Your task to perform on an android device: turn notification dots on Image 0: 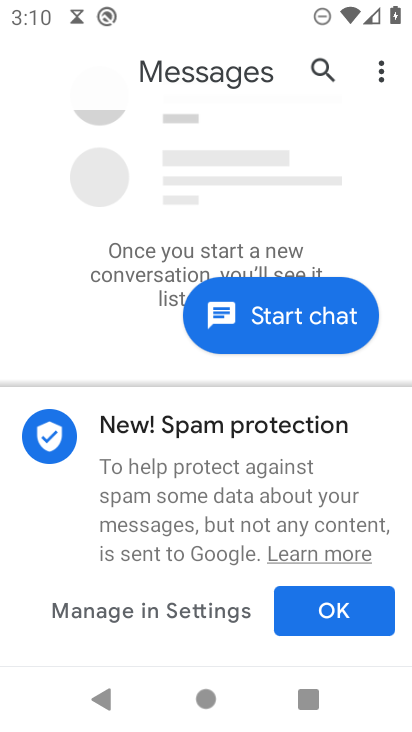
Step 0: press home button
Your task to perform on an android device: turn notification dots on Image 1: 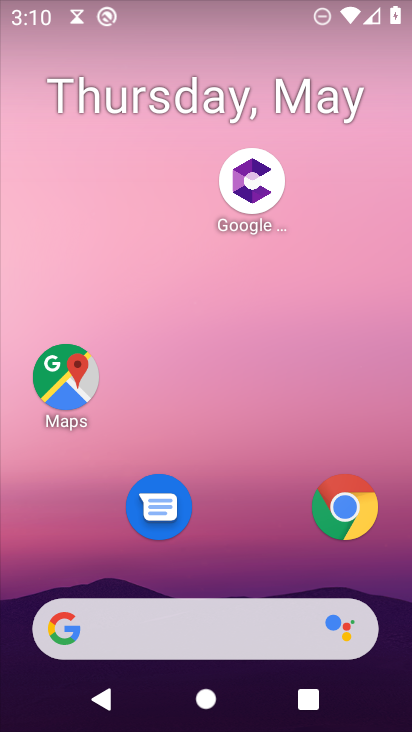
Step 1: drag from (223, 525) to (66, 72)
Your task to perform on an android device: turn notification dots on Image 2: 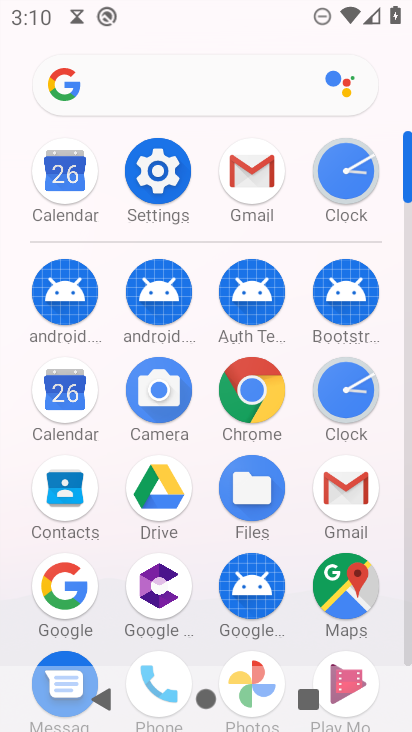
Step 2: click (165, 168)
Your task to perform on an android device: turn notification dots on Image 3: 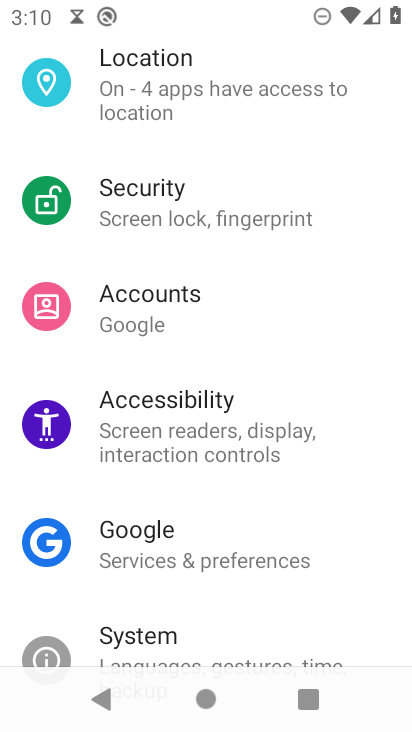
Step 3: drag from (237, 297) to (225, 702)
Your task to perform on an android device: turn notification dots on Image 4: 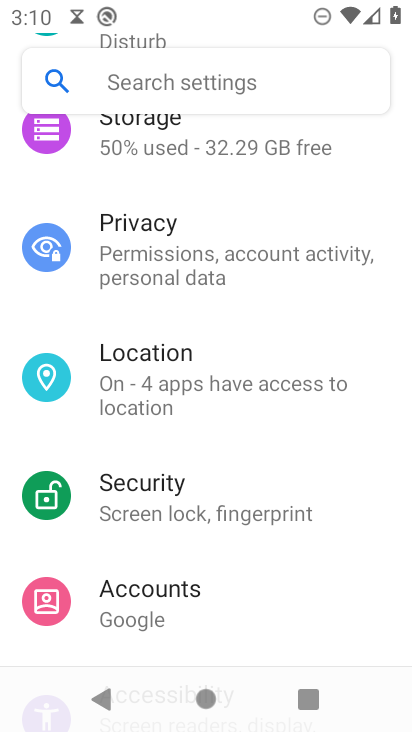
Step 4: drag from (222, 223) to (226, 616)
Your task to perform on an android device: turn notification dots on Image 5: 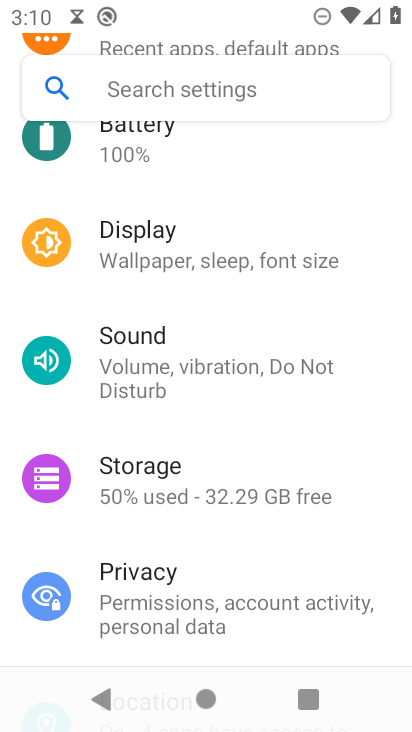
Step 5: drag from (201, 189) to (233, 494)
Your task to perform on an android device: turn notification dots on Image 6: 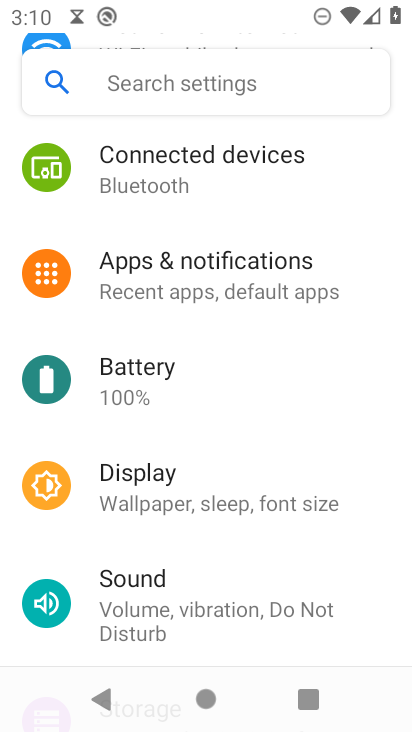
Step 6: click (156, 284)
Your task to perform on an android device: turn notification dots on Image 7: 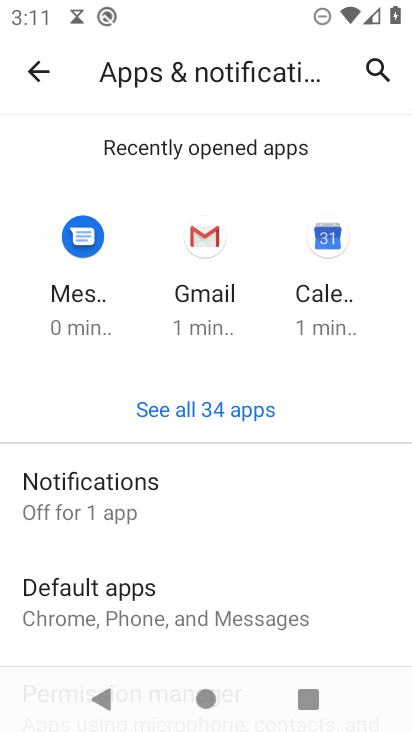
Step 7: drag from (333, 609) to (319, 312)
Your task to perform on an android device: turn notification dots on Image 8: 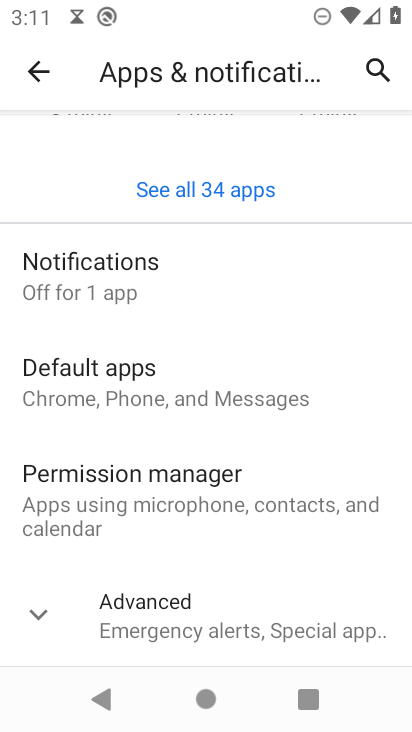
Step 8: click (107, 280)
Your task to perform on an android device: turn notification dots on Image 9: 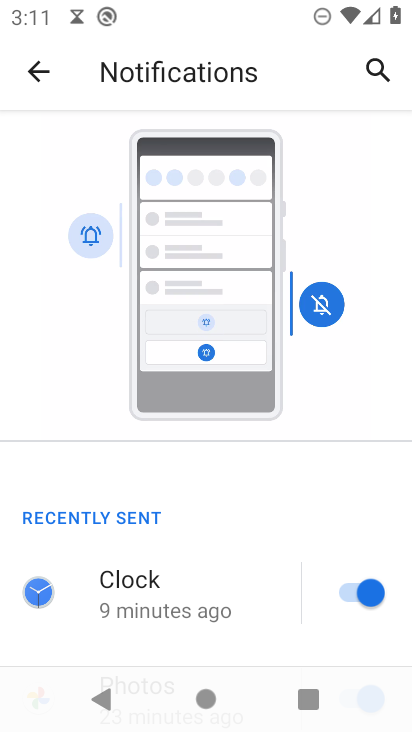
Step 9: drag from (218, 554) to (187, 89)
Your task to perform on an android device: turn notification dots on Image 10: 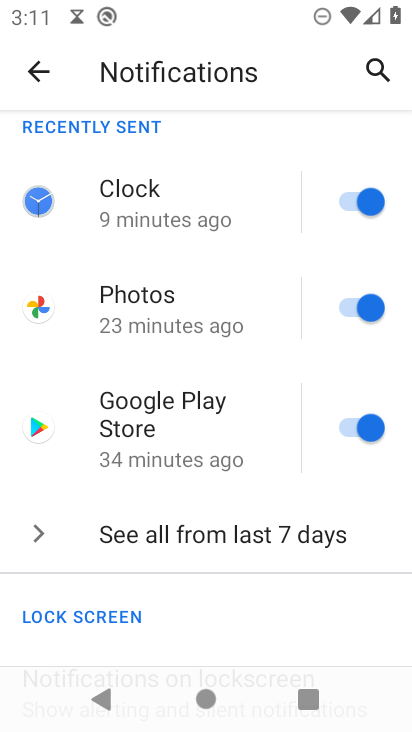
Step 10: drag from (202, 631) to (176, 359)
Your task to perform on an android device: turn notification dots on Image 11: 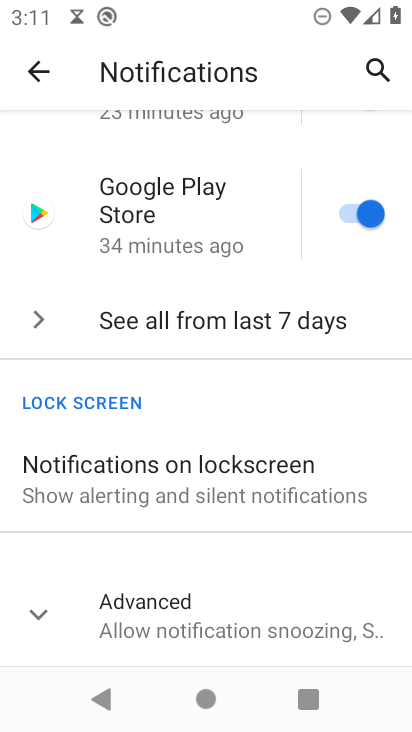
Step 11: click (28, 618)
Your task to perform on an android device: turn notification dots on Image 12: 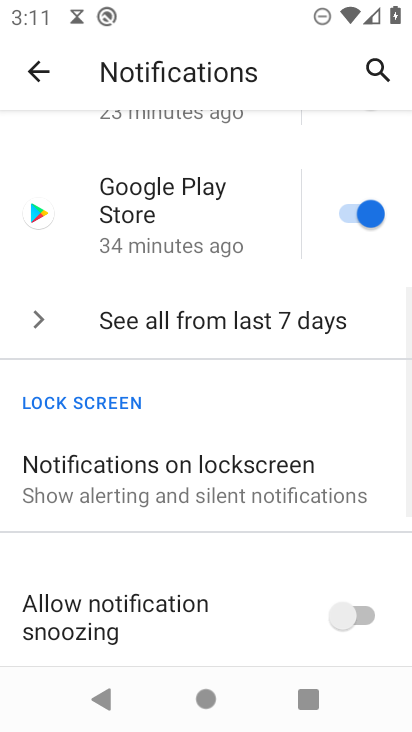
Step 12: task complete